Your task to perform on an android device: Open Amazon Image 0: 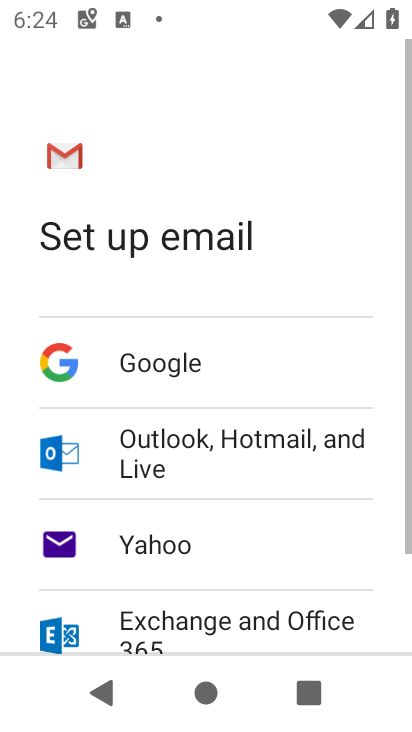
Step 0: press home button
Your task to perform on an android device: Open Amazon Image 1: 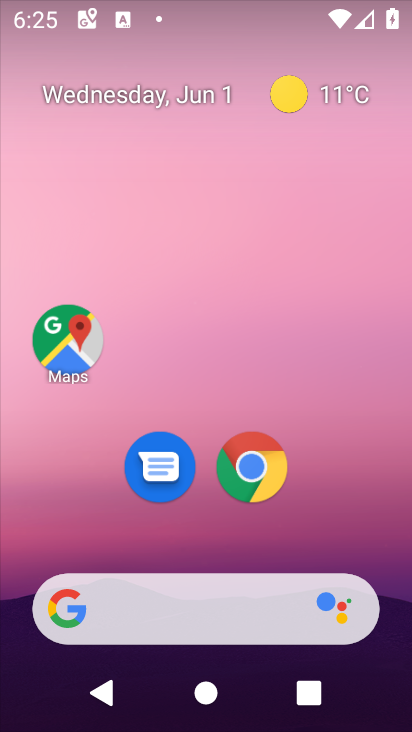
Step 1: click (250, 459)
Your task to perform on an android device: Open Amazon Image 2: 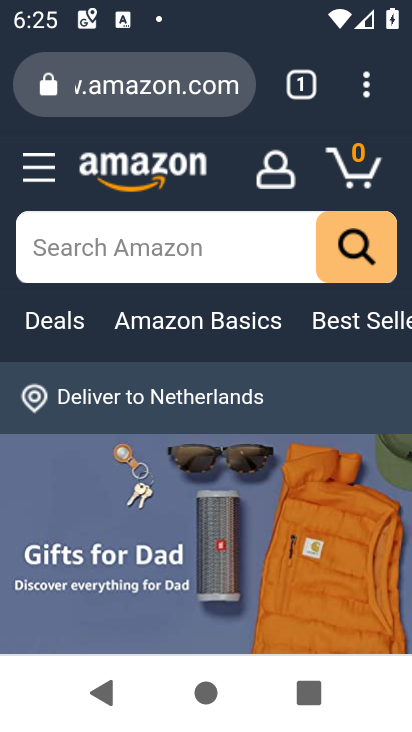
Step 2: task complete